Your task to perform on an android device: turn on bluetooth scan Image 0: 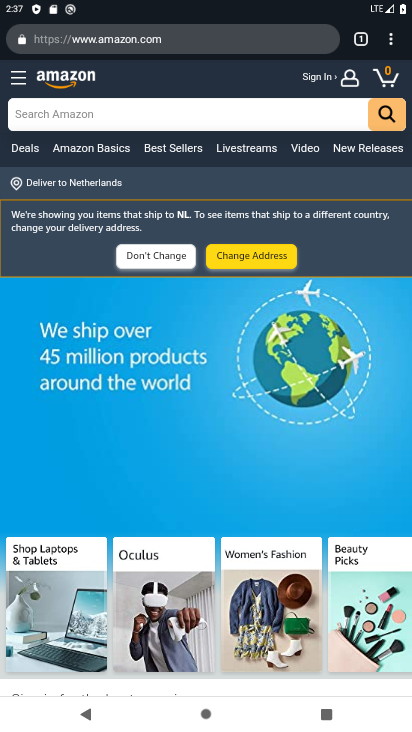
Step 0: press home button
Your task to perform on an android device: turn on bluetooth scan Image 1: 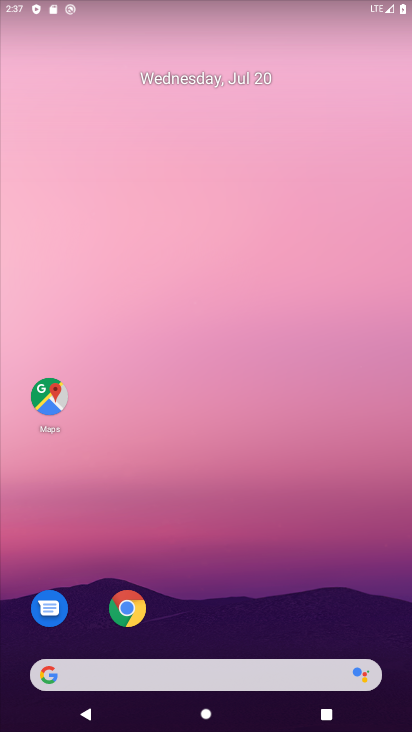
Step 1: drag from (214, 632) to (122, 12)
Your task to perform on an android device: turn on bluetooth scan Image 2: 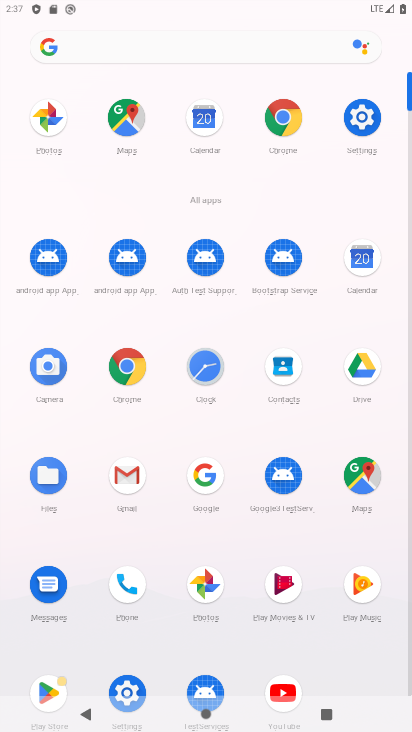
Step 2: click (367, 105)
Your task to perform on an android device: turn on bluetooth scan Image 3: 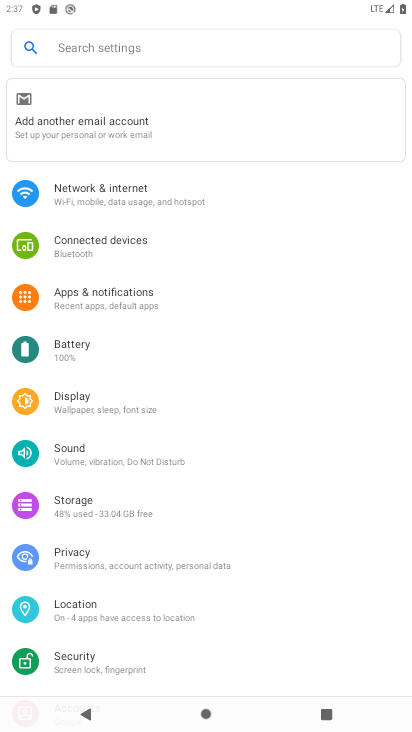
Step 3: click (71, 608)
Your task to perform on an android device: turn on bluetooth scan Image 4: 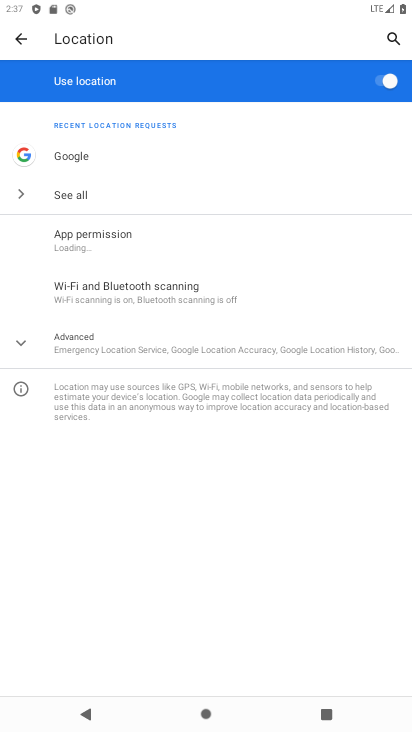
Step 4: click (86, 294)
Your task to perform on an android device: turn on bluetooth scan Image 5: 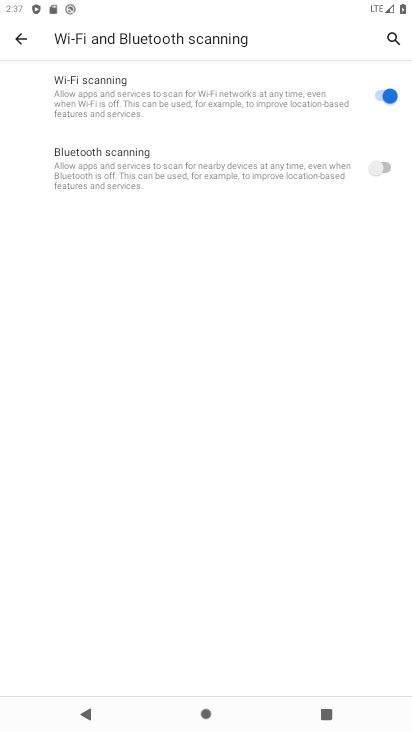
Step 5: click (371, 168)
Your task to perform on an android device: turn on bluetooth scan Image 6: 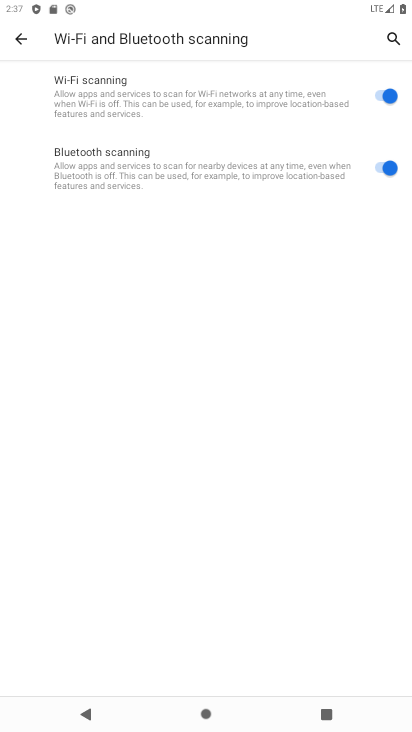
Step 6: task complete